Your task to perform on an android device: toggle sleep mode Image 0: 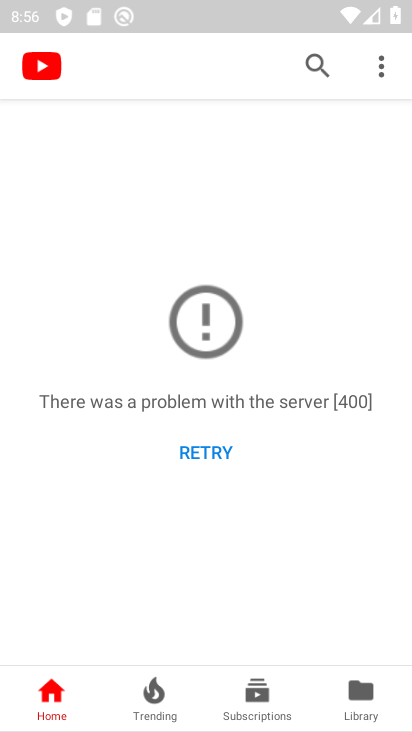
Step 0: press home button
Your task to perform on an android device: toggle sleep mode Image 1: 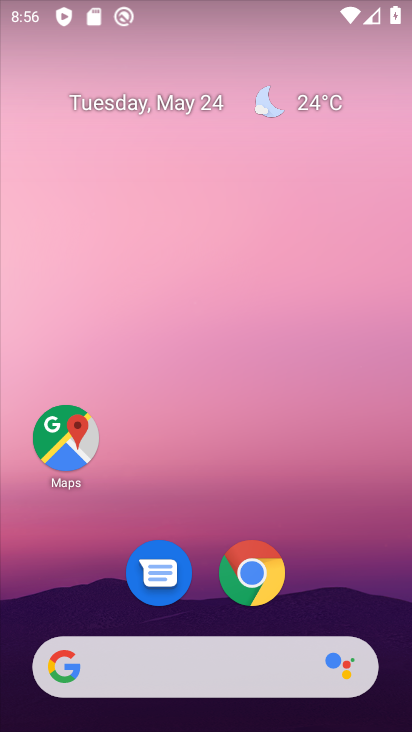
Step 1: drag from (387, 566) to (328, 78)
Your task to perform on an android device: toggle sleep mode Image 2: 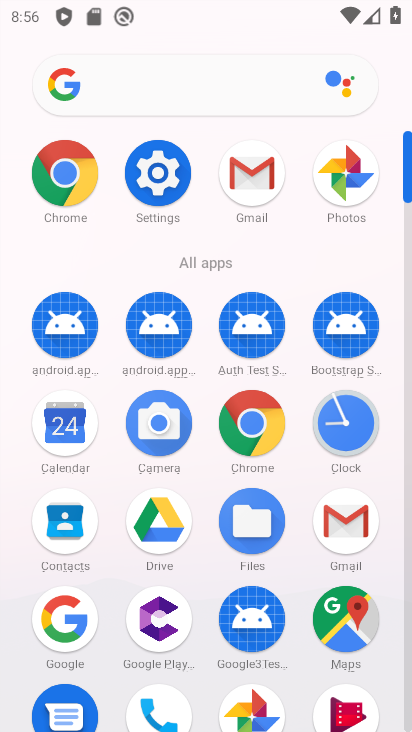
Step 2: click (411, 657)
Your task to perform on an android device: toggle sleep mode Image 3: 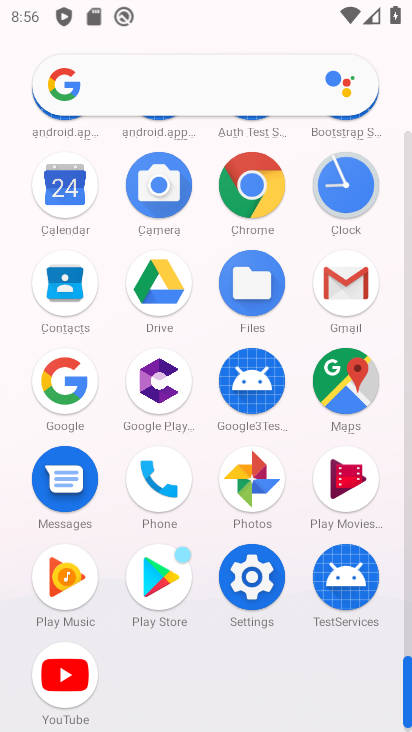
Step 3: click (251, 573)
Your task to perform on an android device: toggle sleep mode Image 4: 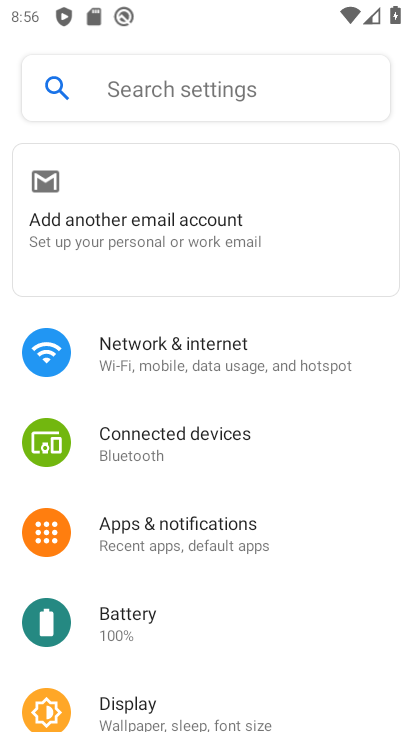
Step 4: click (142, 700)
Your task to perform on an android device: toggle sleep mode Image 5: 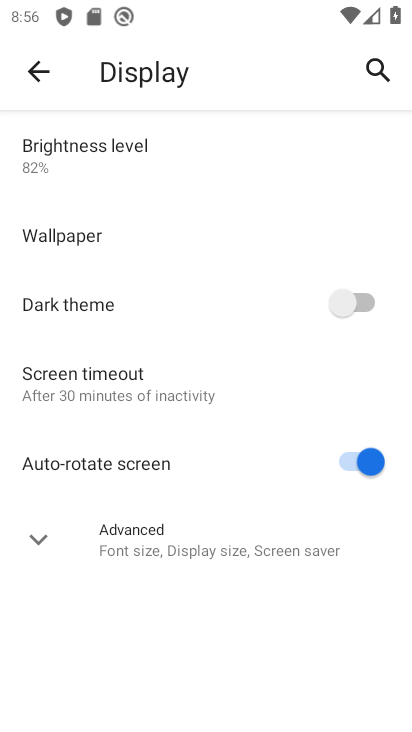
Step 5: click (33, 532)
Your task to perform on an android device: toggle sleep mode Image 6: 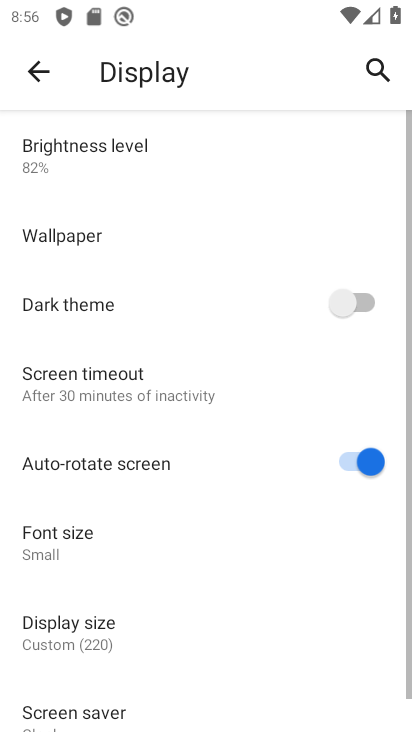
Step 6: task complete